Your task to perform on an android device: delete location history Image 0: 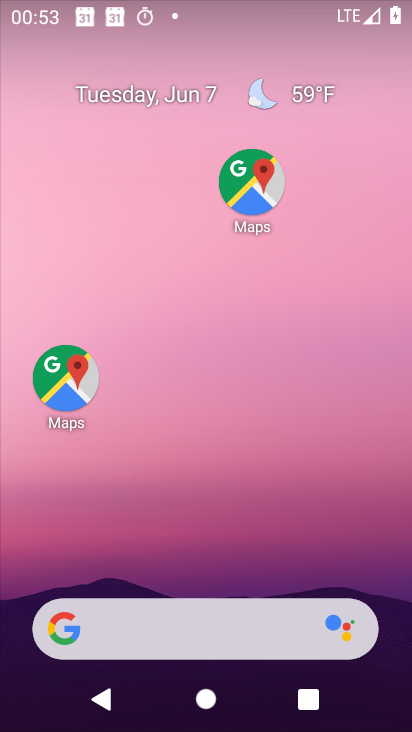
Step 0: drag from (186, 179) to (166, 41)
Your task to perform on an android device: delete location history Image 1: 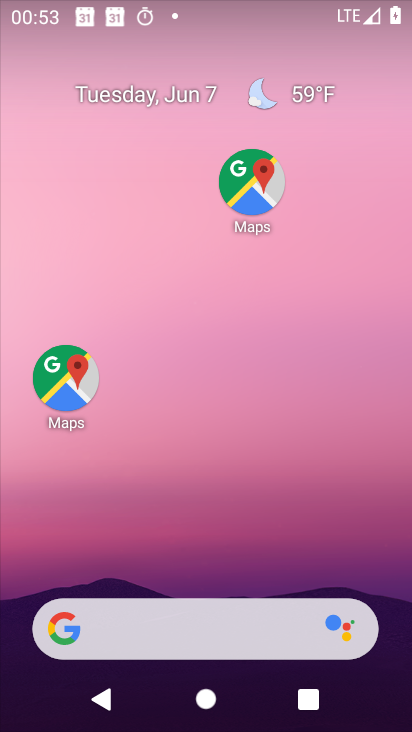
Step 1: drag from (192, 531) to (191, 58)
Your task to perform on an android device: delete location history Image 2: 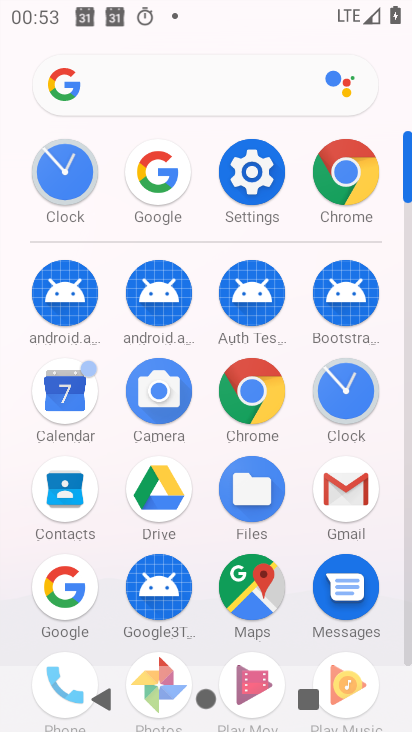
Step 2: click (253, 169)
Your task to perform on an android device: delete location history Image 3: 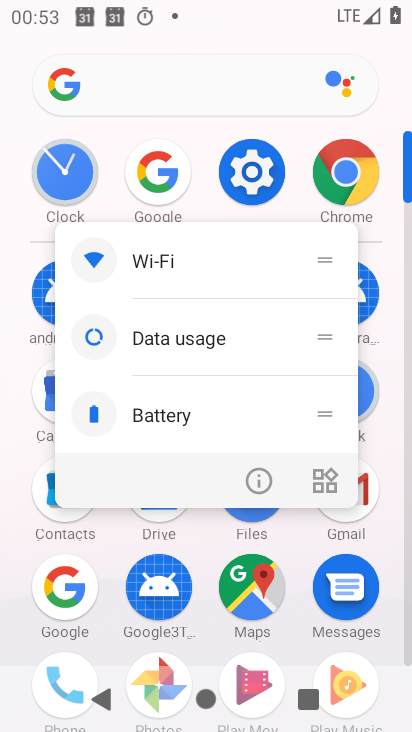
Step 3: click (253, 169)
Your task to perform on an android device: delete location history Image 4: 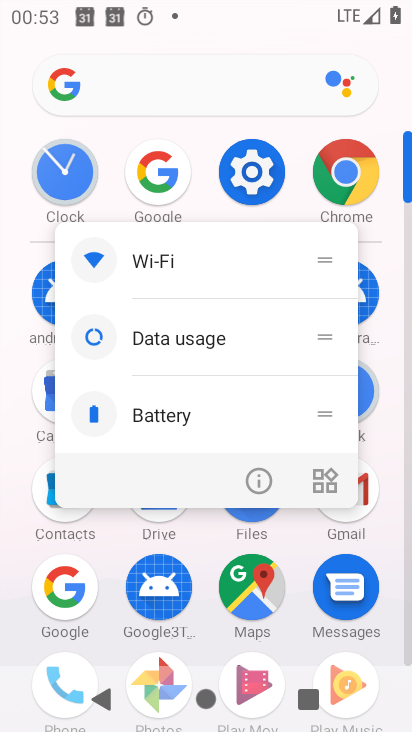
Step 4: click (253, 169)
Your task to perform on an android device: delete location history Image 5: 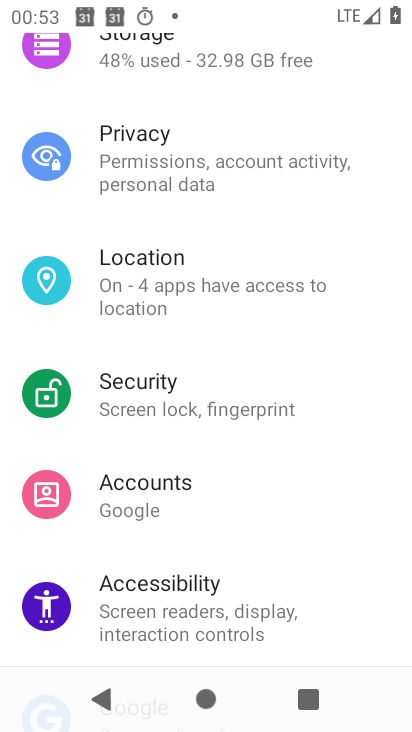
Step 5: click (182, 279)
Your task to perform on an android device: delete location history Image 6: 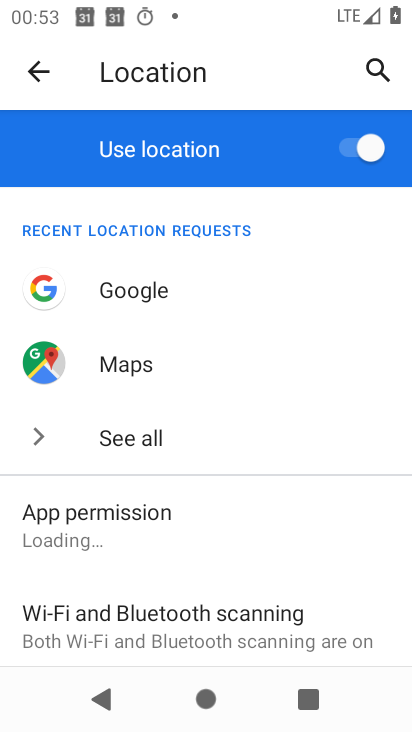
Step 6: drag from (136, 566) to (171, 173)
Your task to perform on an android device: delete location history Image 7: 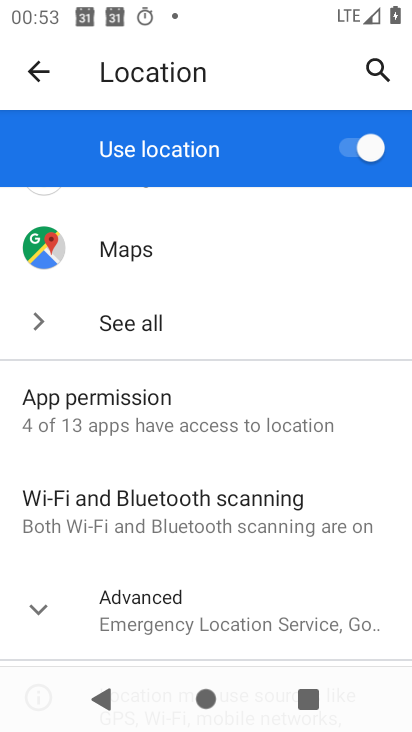
Step 7: click (109, 614)
Your task to perform on an android device: delete location history Image 8: 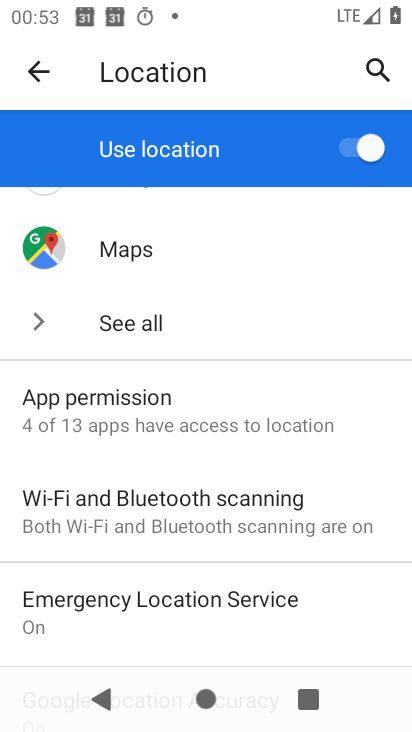
Step 8: drag from (264, 354) to (277, 216)
Your task to perform on an android device: delete location history Image 9: 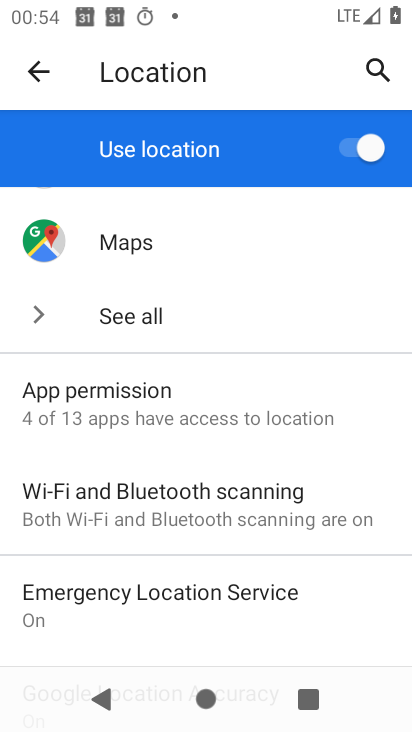
Step 9: drag from (122, 591) to (223, 190)
Your task to perform on an android device: delete location history Image 10: 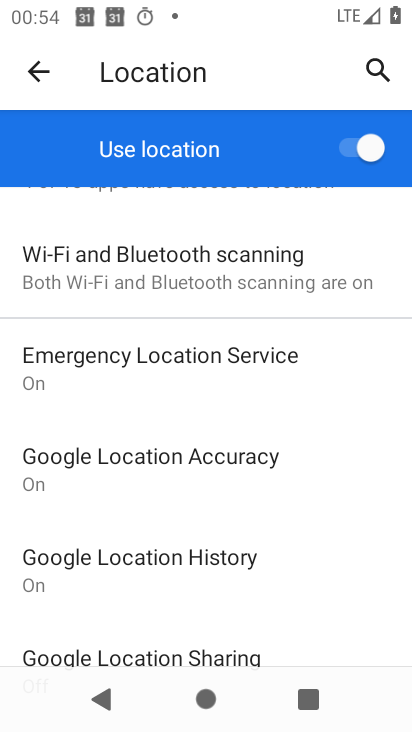
Step 10: click (202, 578)
Your task to perform on an android device: delete location history Image 11: 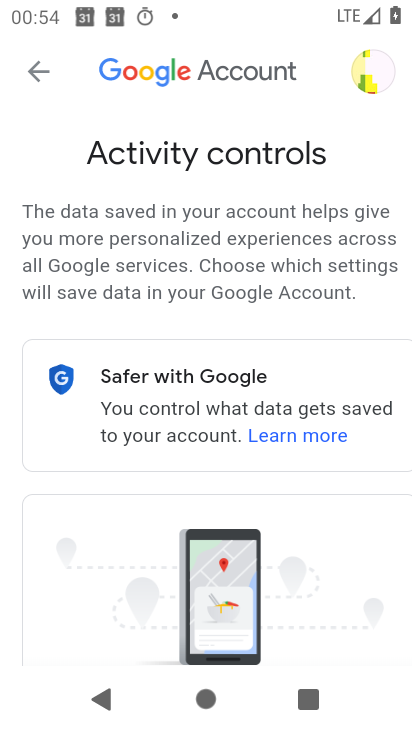
Step 11: drag from (118, 564) to (129, 89)
Your task to perform on an android device: delete location history Image 12: 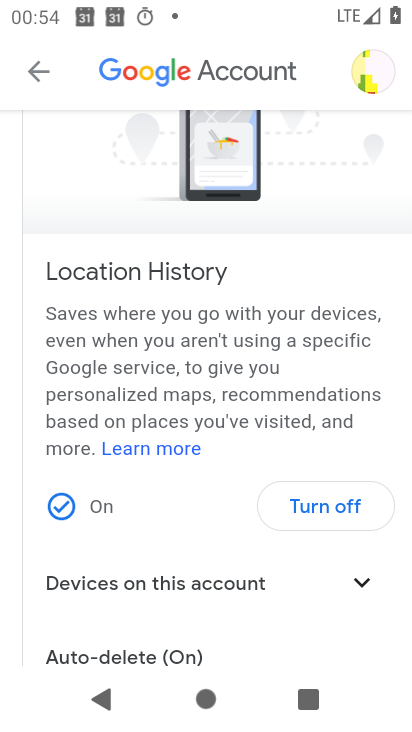
Step 12: drag from (214, 571) to (210, 180)
Your task to perform on an android device: delete location history Image 13: 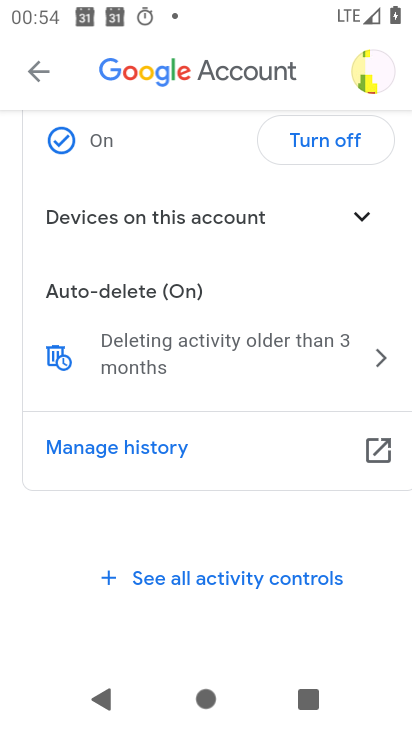
Step 13: click (57, 355)
Your task to perform on an android device: delete location history Image 14: 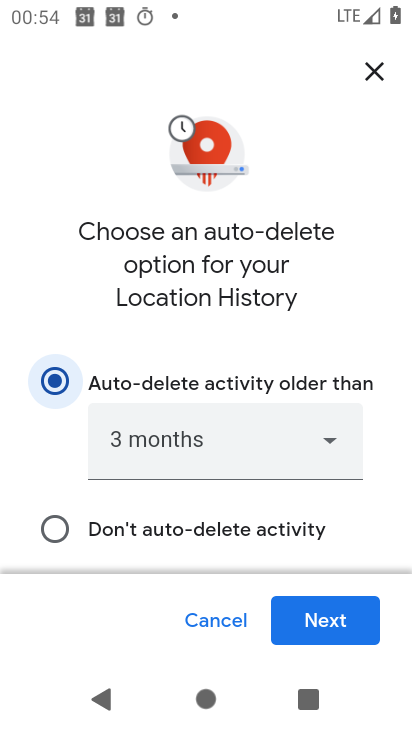
Step 14: click (283, 605)
Your task to perform on an android device: delete location history Image 15: 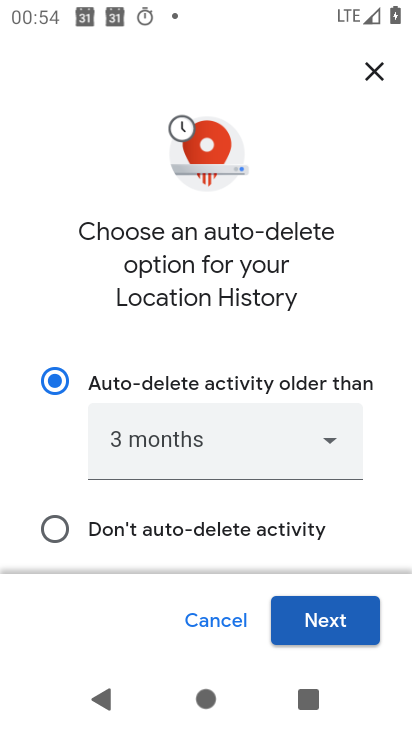
Step 15: click (300, 618)
Your task to perform on an android device: delete location history Image 16: 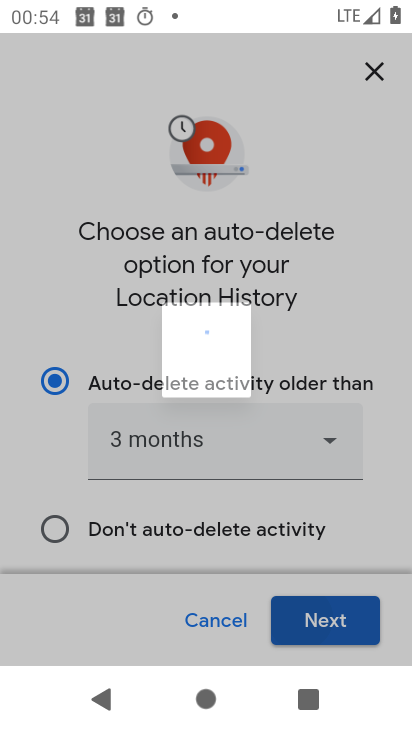
Step 16: click (300, 618)
Your task to perform on an android device: delete location history Image 17: 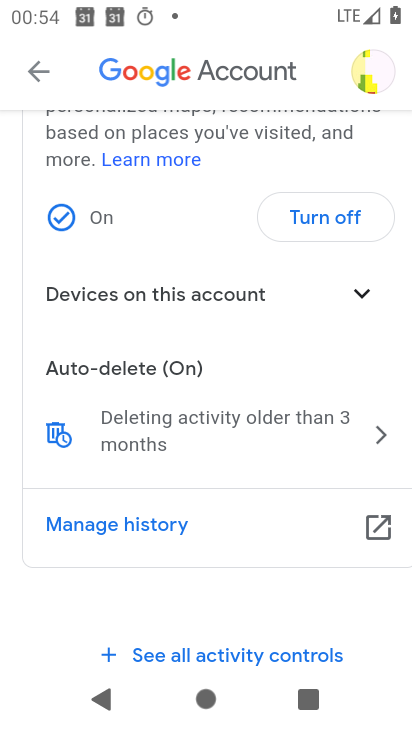
Step 17: click (300, 618)
Your task to perform on an android device: delete location history Image 18: 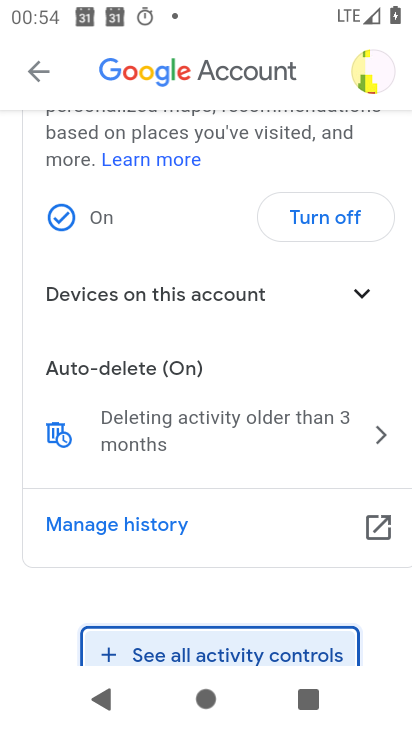
Step 18: task complete